Your task to perform on an android device: Open Google Image 0: 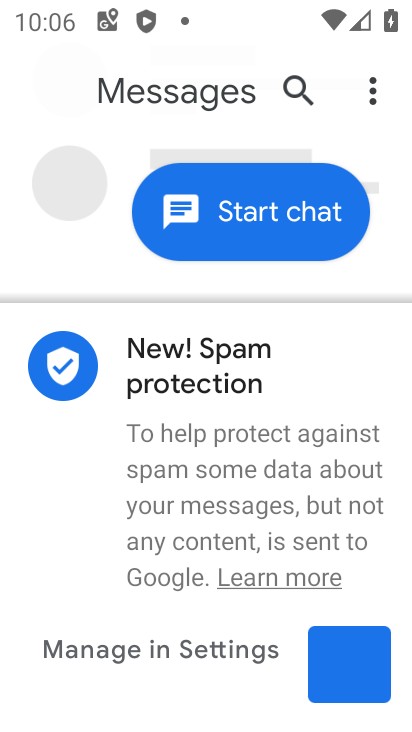
Step 0: press home button
Your task to perform on an android device: Open Google Image 1: 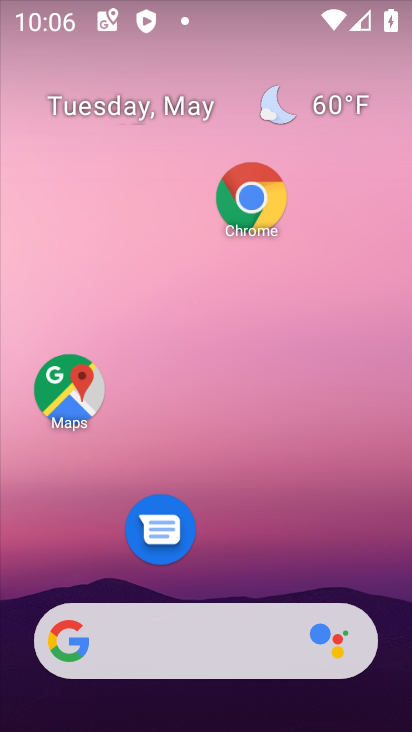
Step 1: drag from (216, 495) to (287, 285)
Your task to perform on an android device: Open Google Image 2: 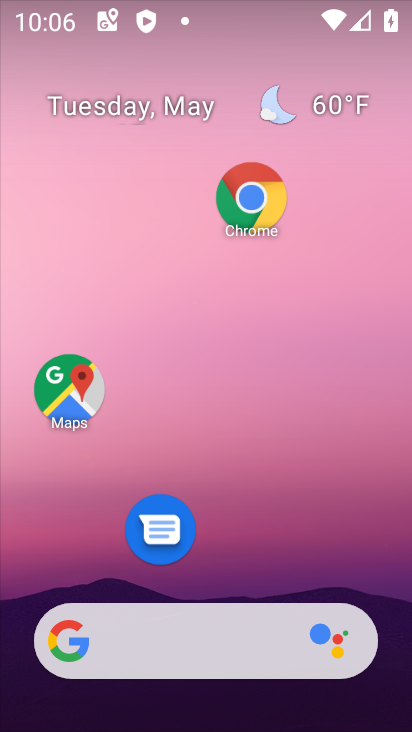
Step 2: drag from (167, 597) to (239, 283)
Your task to perform on an android device: Open Google Image 3: 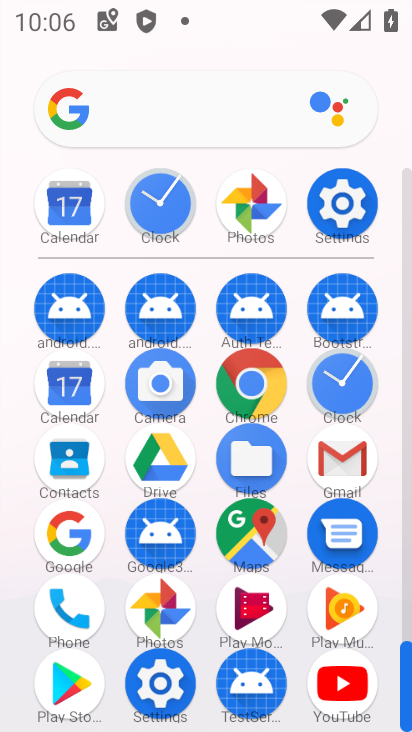
Step 3: click (62, 543)
Your task to perform on an android device: Open Google Image 4: 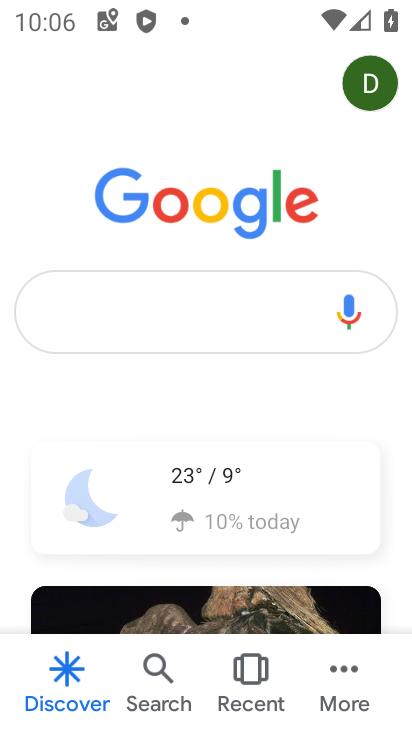
Step 4: task complete